Your task to perform on an android device: Is it going to rain tomorrow? Image 0: 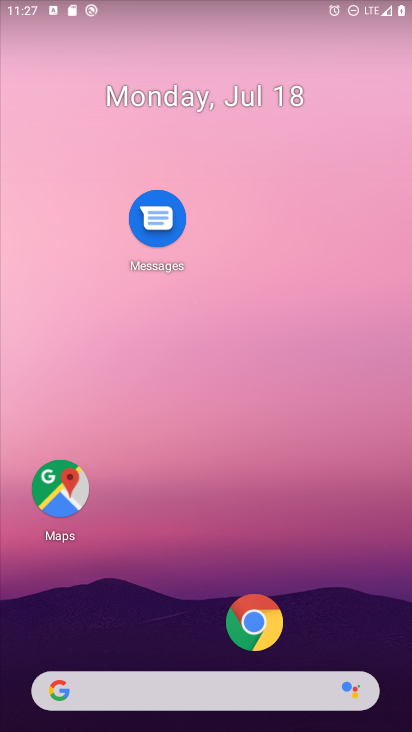
Step 0: drag from (146, 451) to (169, 145)
Your task to perform on an android device: Is it going to rain tomorrow? Image 1: 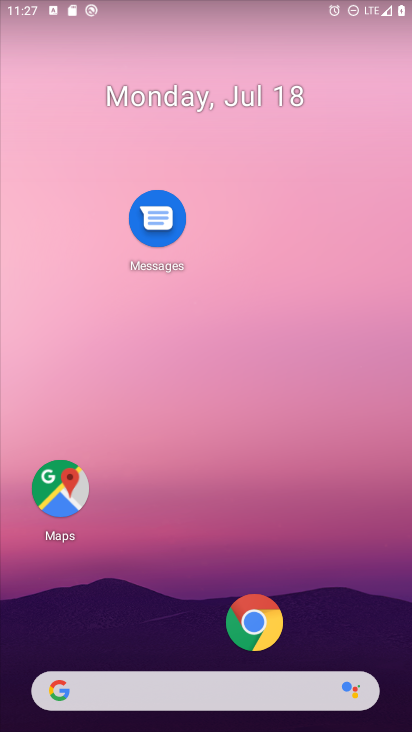
Step 1: drag from (249, 627) to (249, 131)
Your task to perform on an android device: Is it going to rain tomorrow? Image 2: 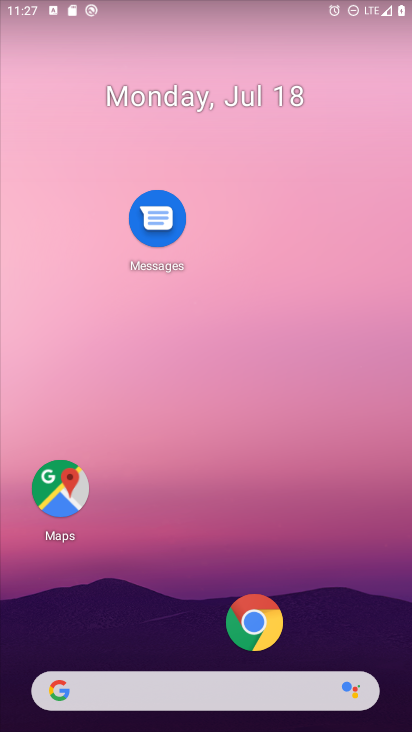
Step 2: drag from (168, 616) to (190, 62)
Your task to perform on an android device: Is it going to rain tomorrow? Image 3: 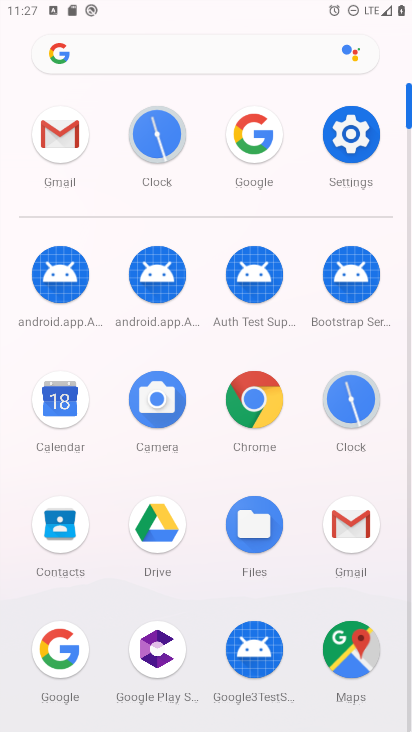
Step 3: click (57, 652)
Your task to perform on an android device: Is it going to rain tomorrow? Image 4: 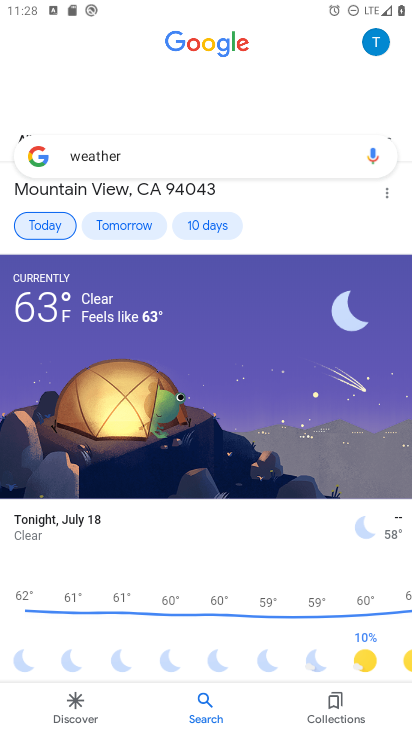
Step 4: click (130, 231)
Your task to perform on an android device: Is it going to rain tomorrow? Image 5: 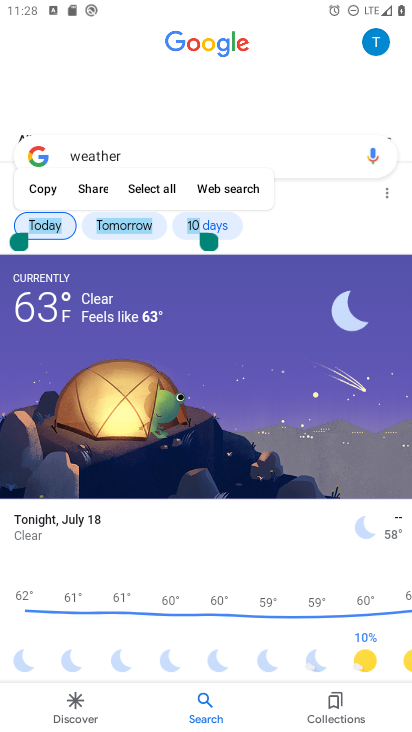
Step 5: click (273, 245)
Your task to perform on an android device: Is it going to rain tomorrow? Image 6: 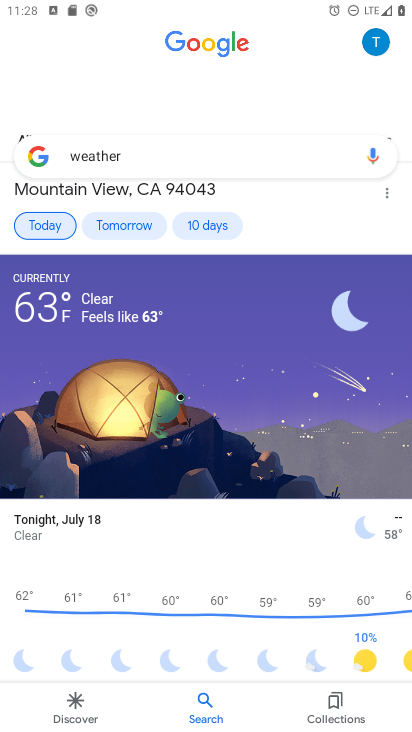
Step 6: click (143, 231)
Your task to perform on an android device: Is it going to rain tomorrow? Image 7: 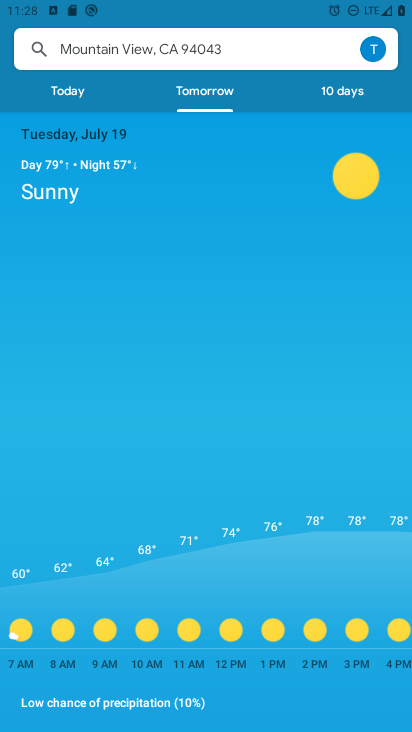
Step 7: task complete